Your task to perform on an android device: delete the emails in spam in the gmail app Image 0: 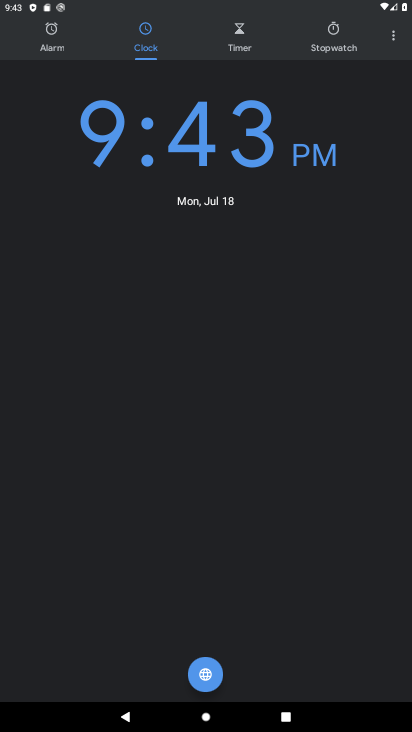
Step 0: press home button
Your task to perform on an android device: delete the emails in spam in the gmail app Image 1: 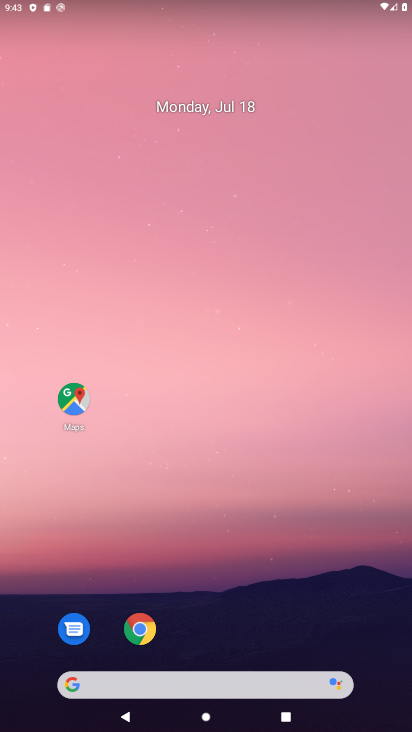
Step 1: drag from (210, 685) to (181, 160)
Your task to perform on an android device: delete the emails in spam in the gmail app Image 2: 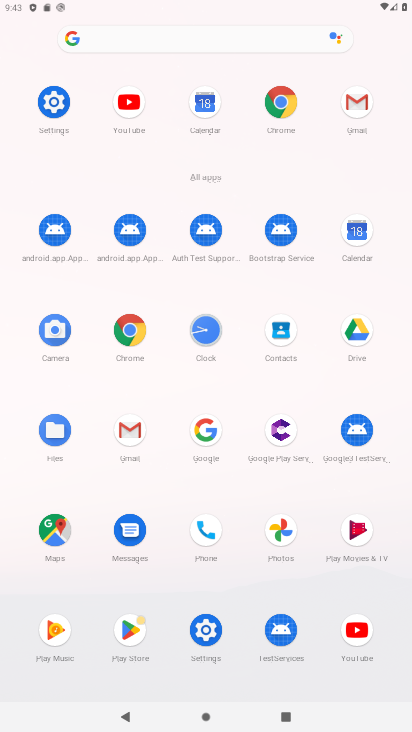
Step 2: click (140, 440)
Your task to perform on an android device: delete the emails in spam in the gmail app Image 3: 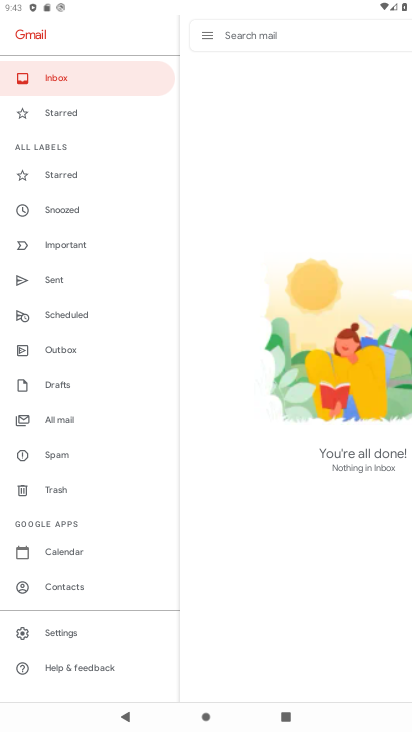
Step 3: click (59, 455)
Your task to perform on an android device: delete the emails in spam in the gmail app Image 4: 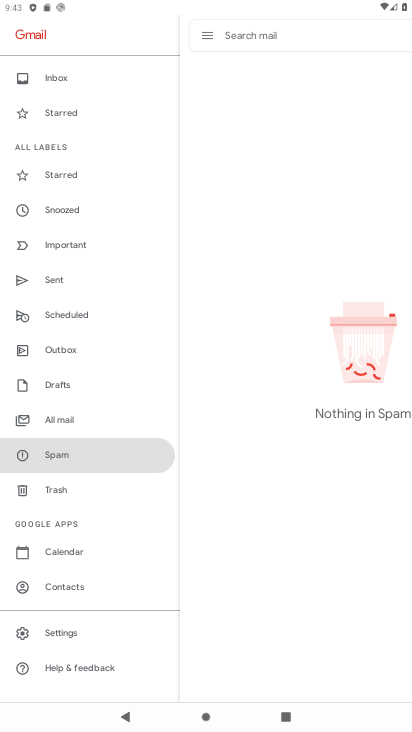
Step 4: task complete